Your task to perform on an android device: open a new tab in the chrome app Image 0: 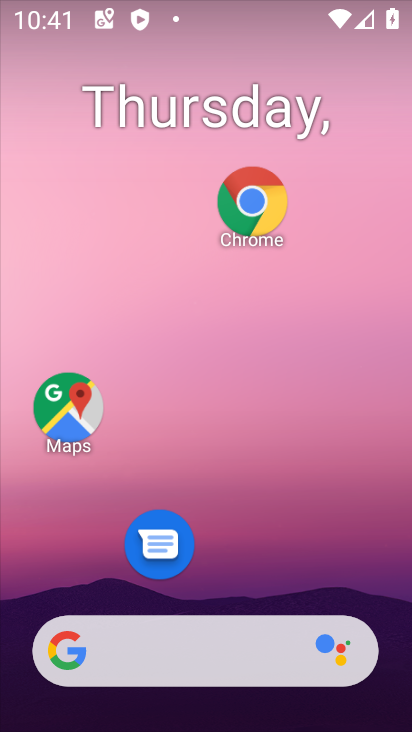
Step 0: press home button
Your task to perform on an android device: open a new tab in the chrome app Image 1: 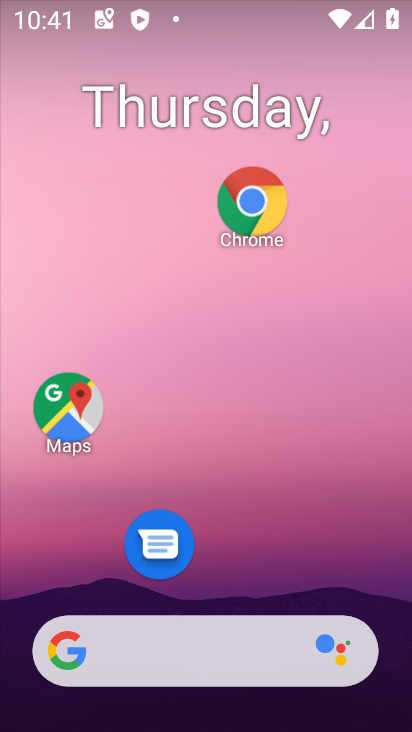
Step 1: click (254, 196)
Your task to perform on an android device: open a new tab in the chrome app Image 2: 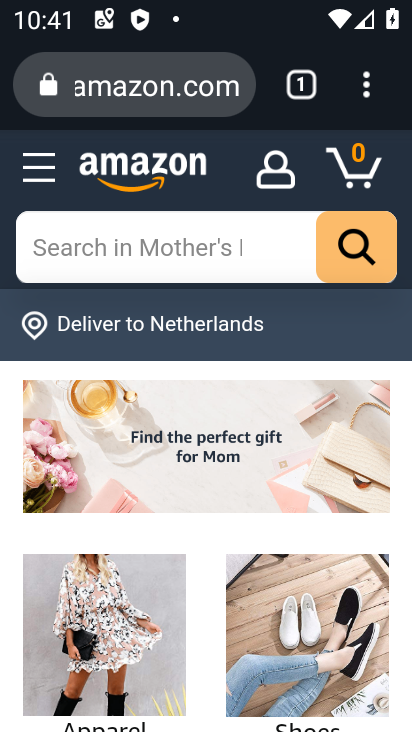
Step 2: click (302, 89)
Your task to perform on an android device: open a new tab in the chrome app Image 3: 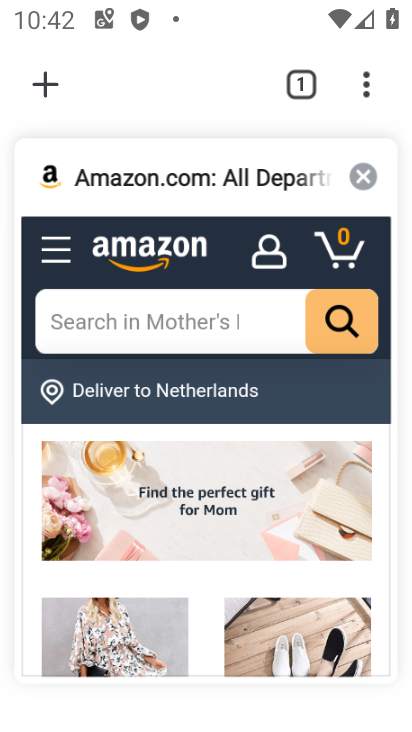
Step 3: click (51, 84)
Your task to perform on an android device: open a new tab in the chrome app Image 4: 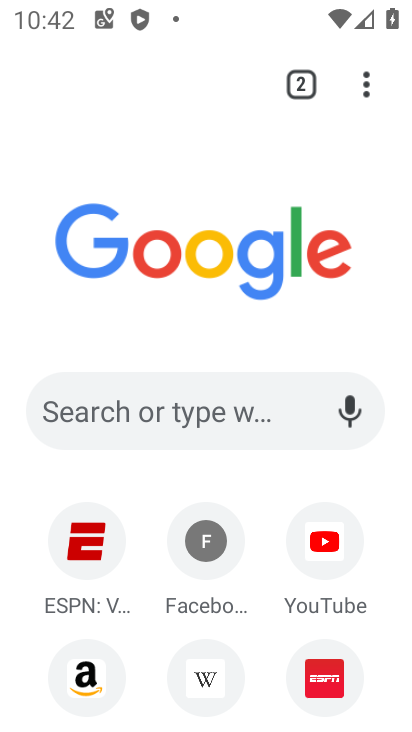
Step 4: task complete